Your task to perform on an android device: When is my next meeting? Image 0: 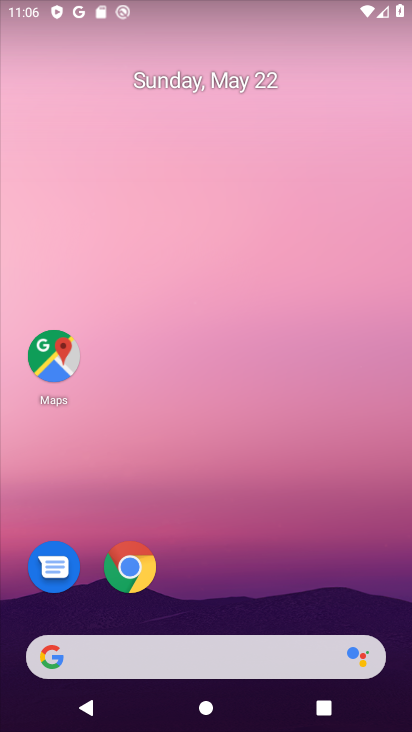
Step 0: click (230, 104)
Your task to perform on an android device: When is my next meeting? Image 1: 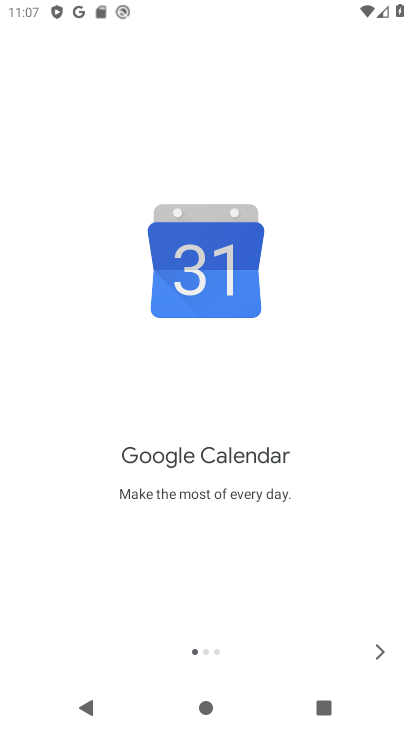
Step 1: click (386, 654)
Your task to perform on an android device: When is my next meeting? Image 2: 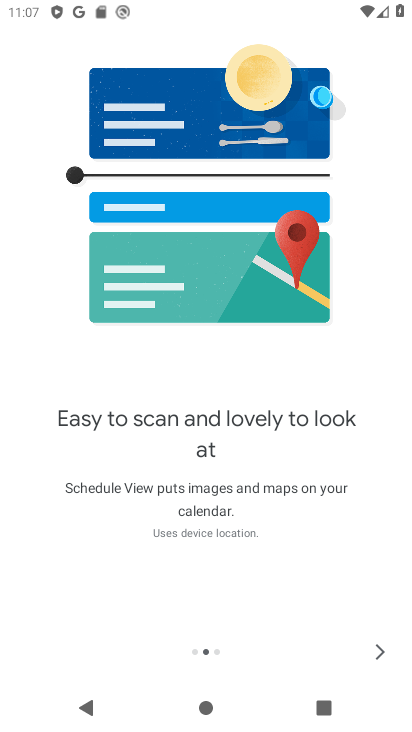
Step 2: click (386, 654)
Your task to perform on an android device: When is my next meeting? Image 3: 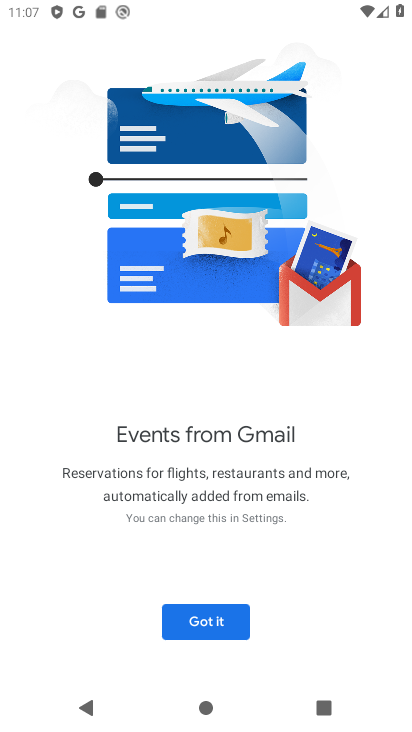
Step 3: click (205, 607)
Your task to perform on an android device: When is my next meeting? Image 4: 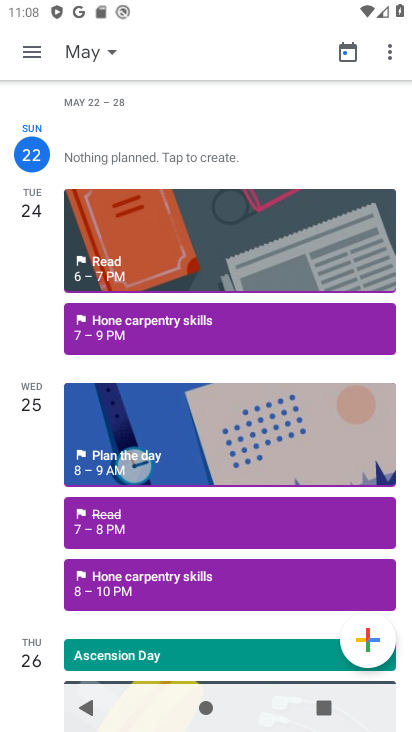
Step 4: task complete